Your task to perform on an android device: Open Google Maps and go to "Timeline" Image 0: 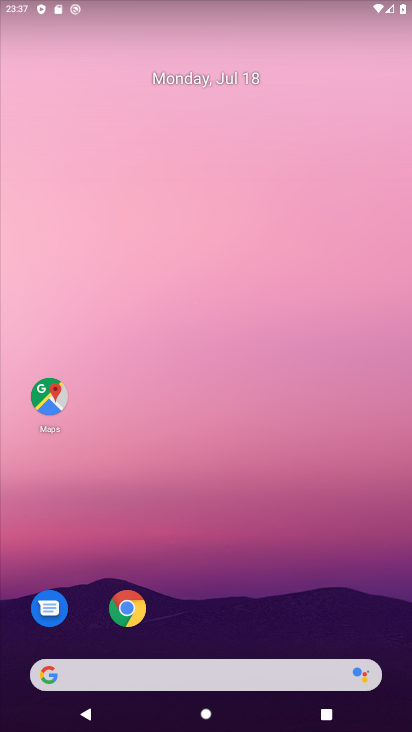
Step 0: click (49, 397)
Your task to perform on an android device: Open Google Maps and go to "Timeline" Image 1: 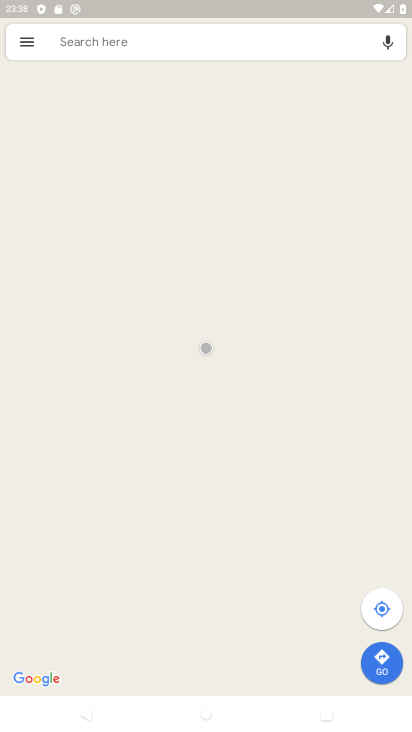
Step 1: click (26, 40)
Your task to perform on an android device: Open Google Maps and go to "Timeline" Image 2: 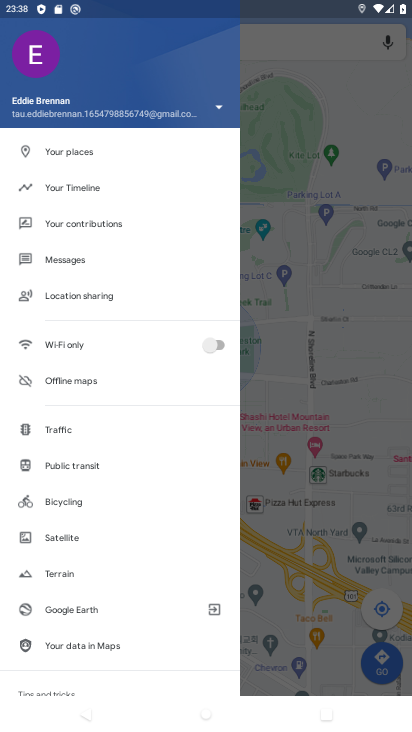
Step 2: drag from (100, 601) to (97, 505)
Your task to perform on an android device: Open Google Maps and go to "Timeline" Image 3: 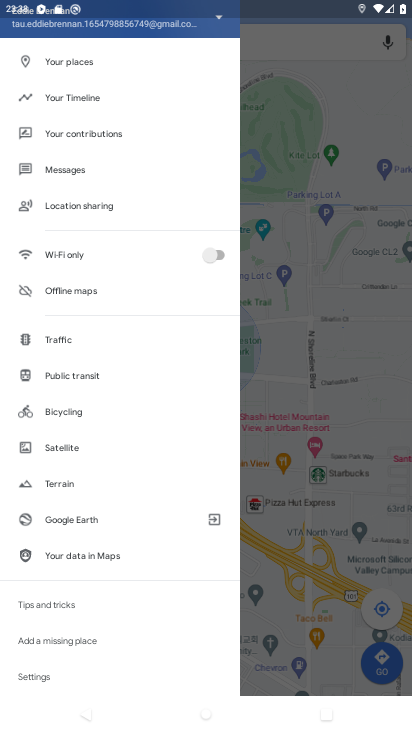
Step 3: drag from (87, 576) to (137, 517)
Your task to perform on an android device: Open Google Maps and go to "Timeline" Image 4: 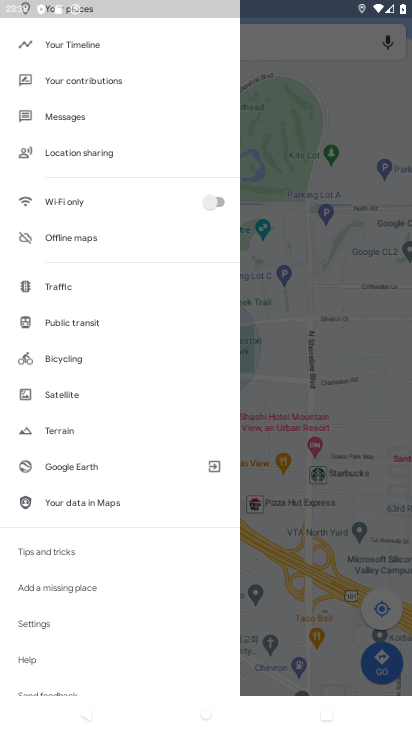
Step 4: click (80, 40)
Your task to perform on an android device: Open Google Maps and go to "Timeline" Image 5: 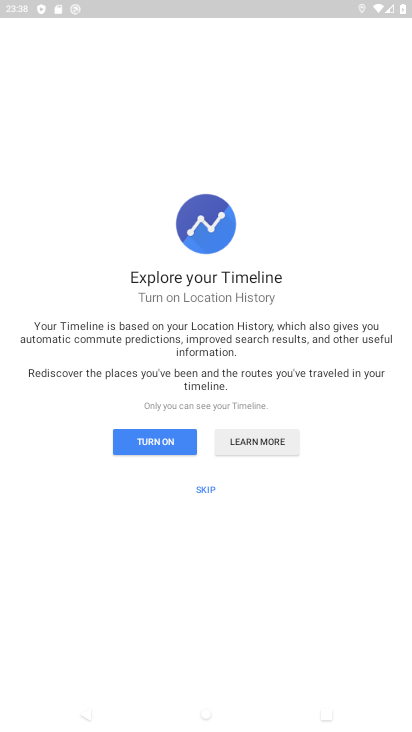
Step 5: click (209, 488)
Your task to perform on an android device: Open Google Maps and go to "Timeline" Image 6: 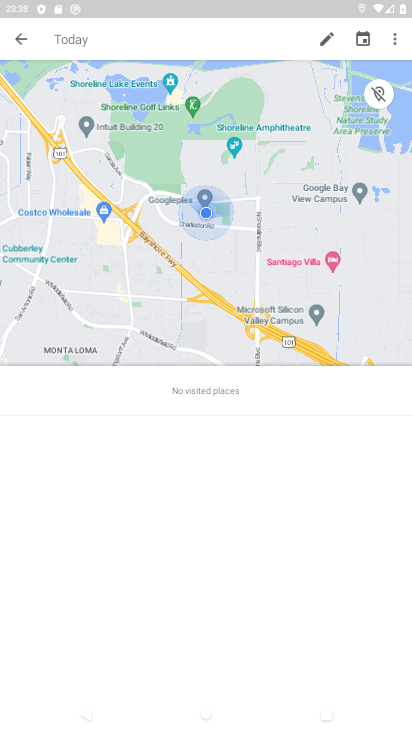
Step 6: task complete